Your task to perform on an android device: Open Amazon Image 0: 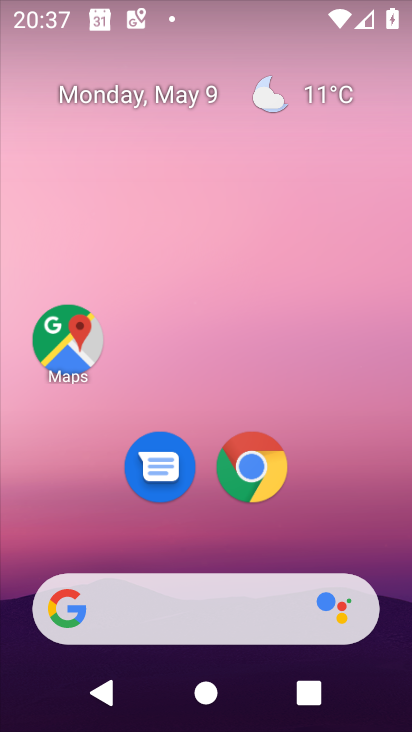
Step 0: drag from (343, 501) to (317, 72)
Your task to perform on an android device: Open Amazon Image 1: 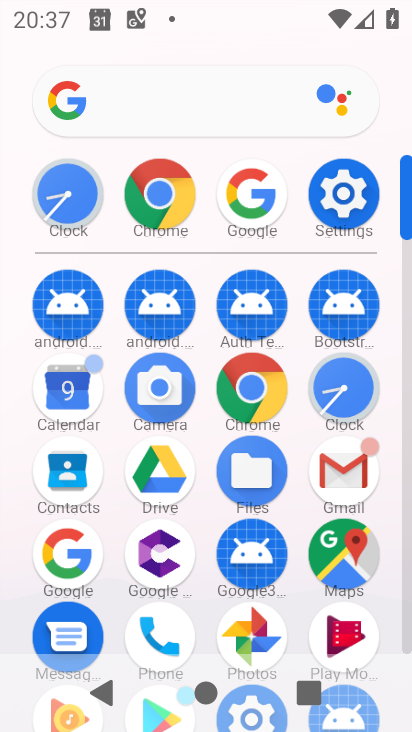
Step 1: click (256, 387)
Your task to perform on an android device: Open Amazon Image 2: 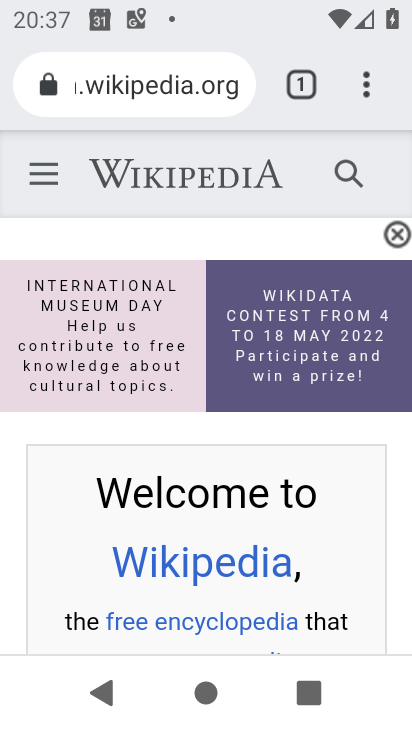
Step 2: click (342, 77)
Your task to perform on an android device: Open Amazon Image 3: 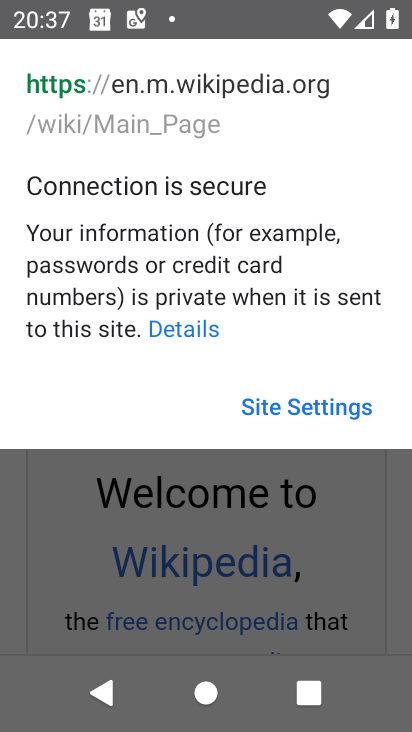
Step 3: click (392, 306)
Your task to perform on an android device: Open Amazon Image 4: 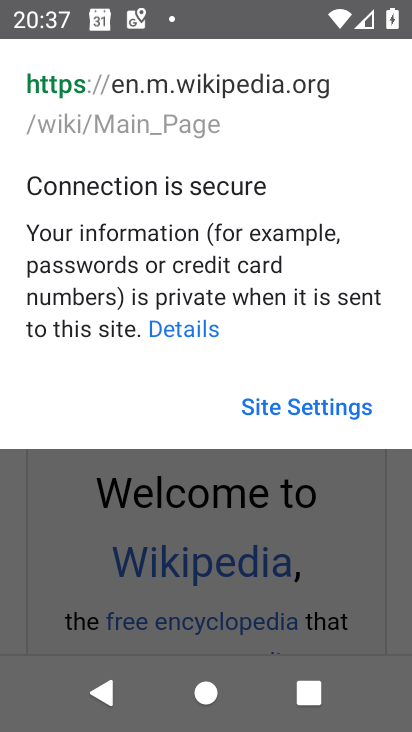
Step 4: press back button
Your task to perform on an android device: Open Amazon Image 5: 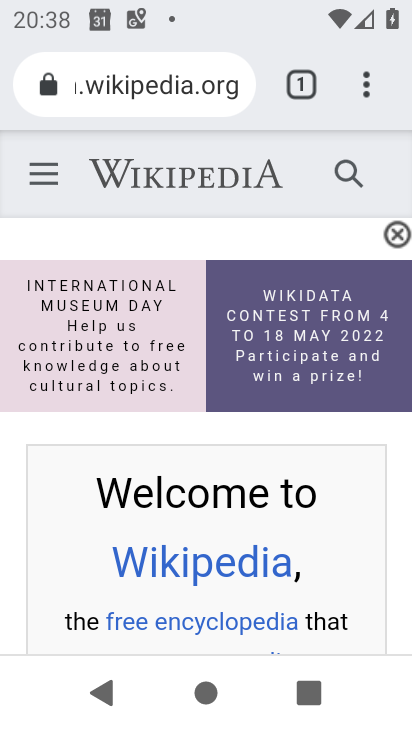
Step 5: click (349, 91)
Your task to perform on an android device: Open Amazon Image 6: 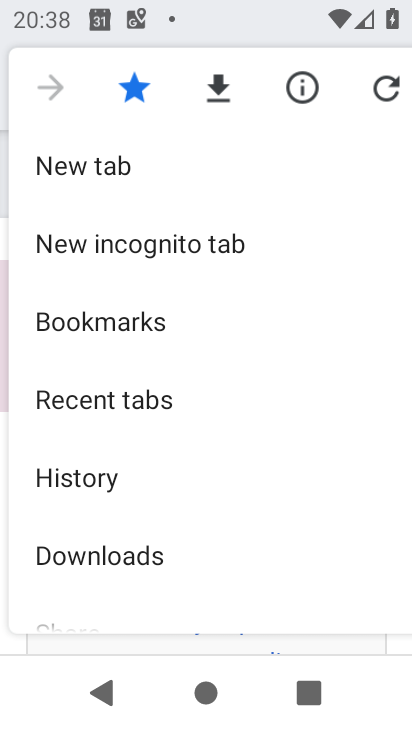
Step 6: click (76, 183)
Your task to perform on an android device: Open Amazon Image 7: 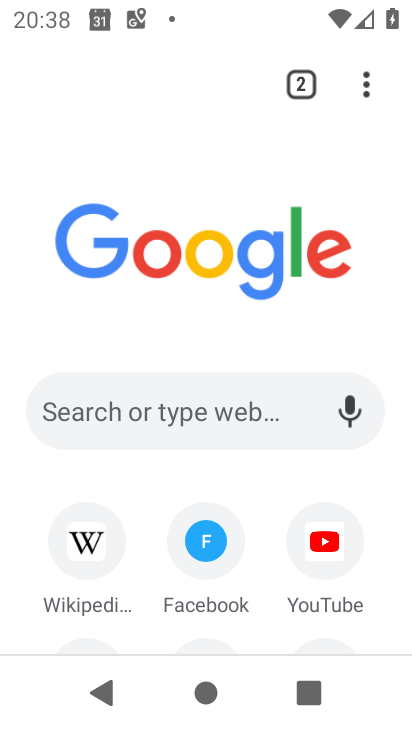
Step 7: drag from (262, 539) to (328, 264)
Your task to perform on an android device: Open Amazon Image 8: 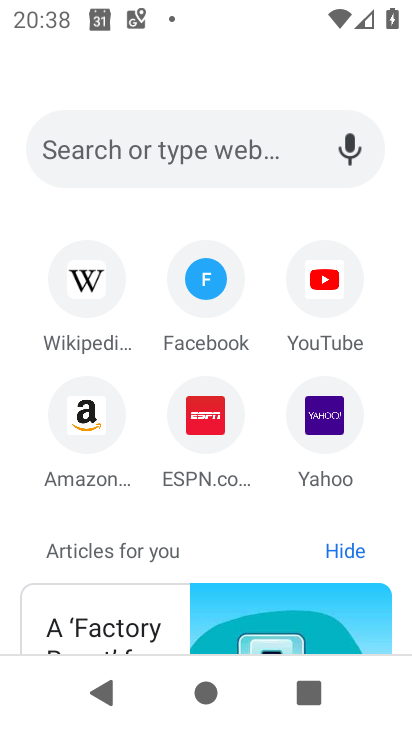
Step 8: click (79, 408)
Your task to perform on an android device: Open Amazon Image 9: 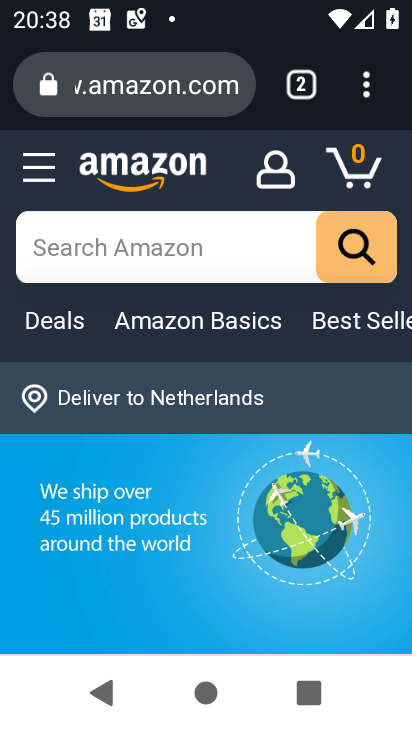
Step 9: task complete